Your task to perform on an android device: change the clock style Image 0: 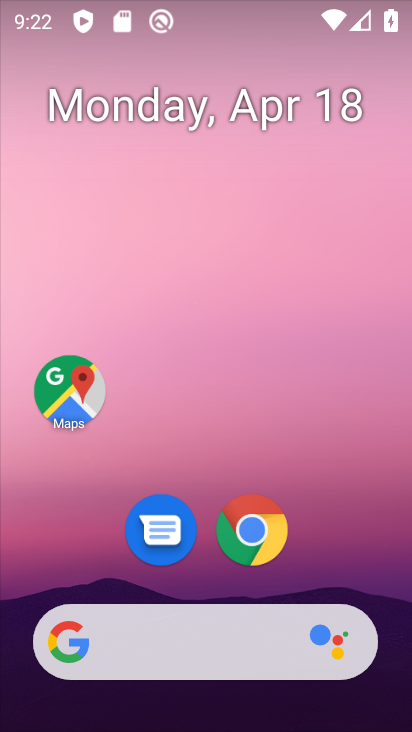
Step 0: drag from (388, 602) to (391, 0)
Your task to perform on an android device: change the clock style Image 1: 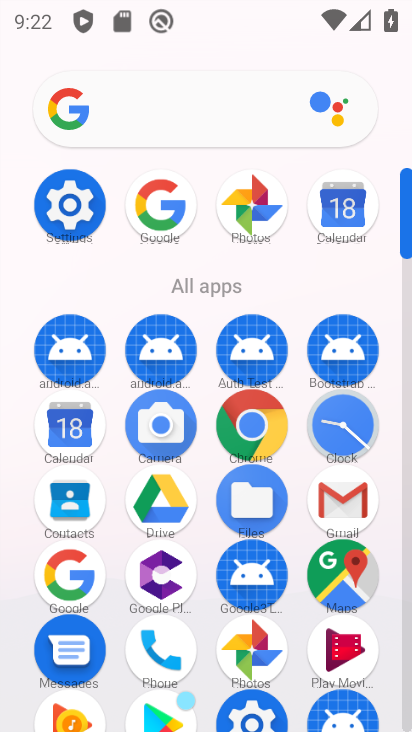
Step 1: click (334, 425)
Your task to perform on an android device: change the clock style Image 2: 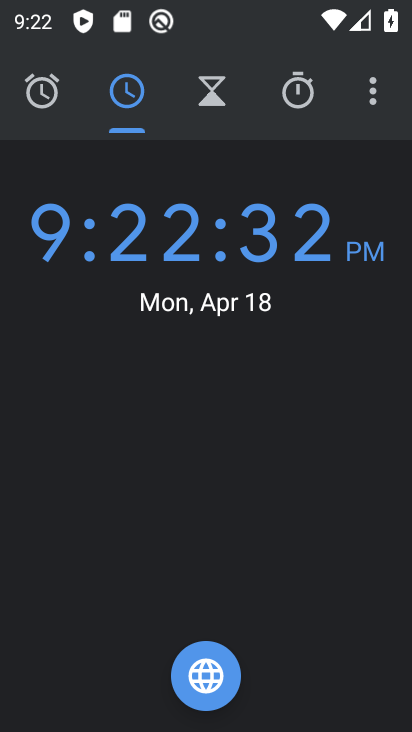
Step 2: click (372, 90)
Your task to perform on an android device: change the clock style Image 3: 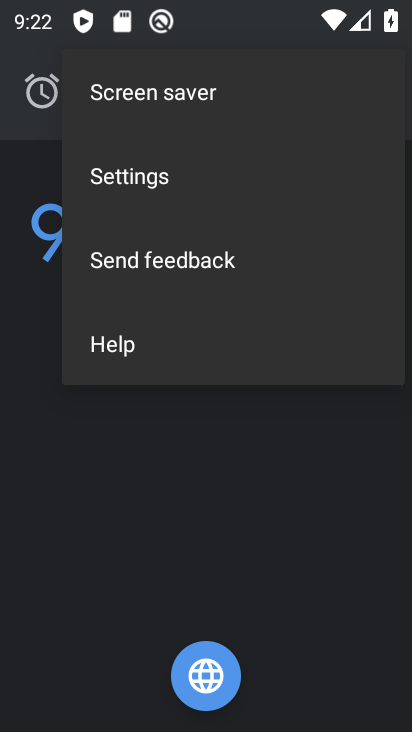
Step 3: click (119, 181)
Your task to perform on an android device: change the clock style Image 4: 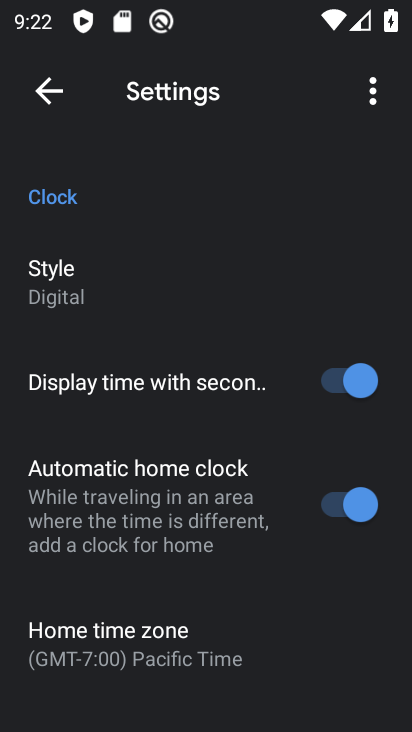
Step 4: click (50, 296)
Your task to perform on an android device: change the clock style Image 5: 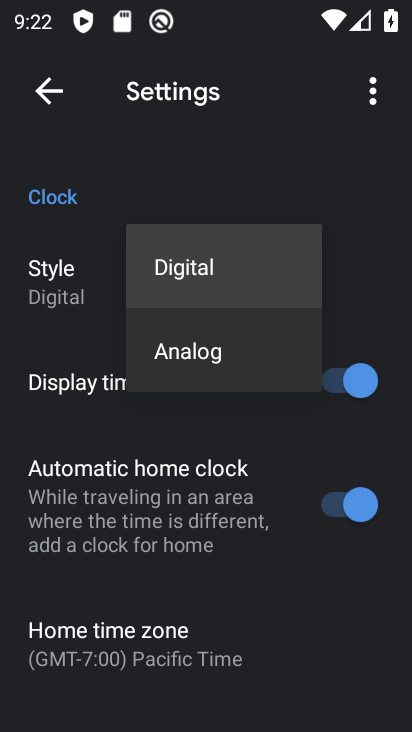
Step 5: click (203, 359)
Your task to perform on an android device: change the clock style Image 6: 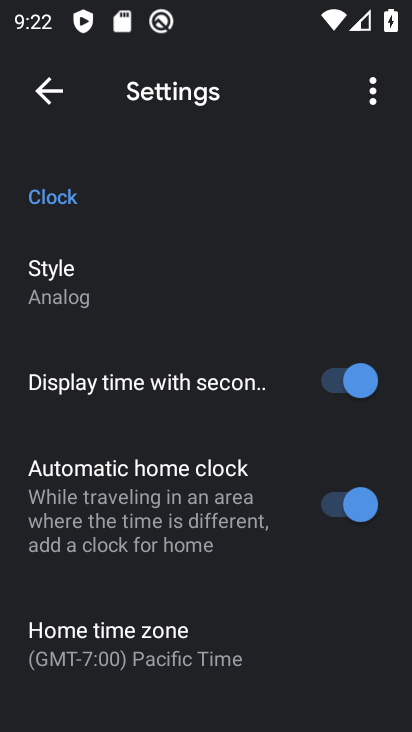
Step 6: task complete